Your task to perform on an android device: turn on location history Image 0: 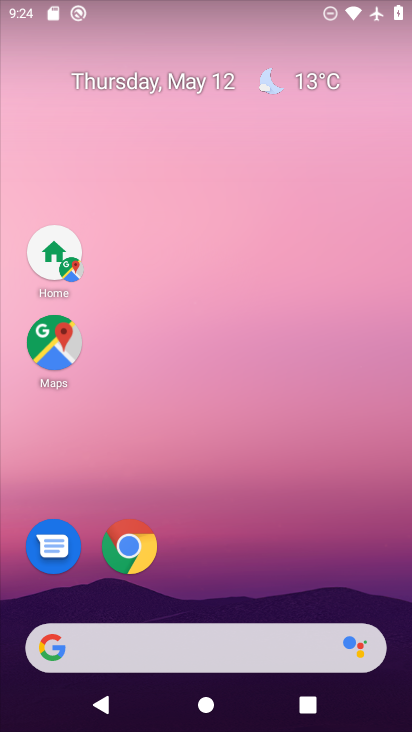
Step 0: click (57, 355)
Your task to perform on an android device: turn on location history Image 1: 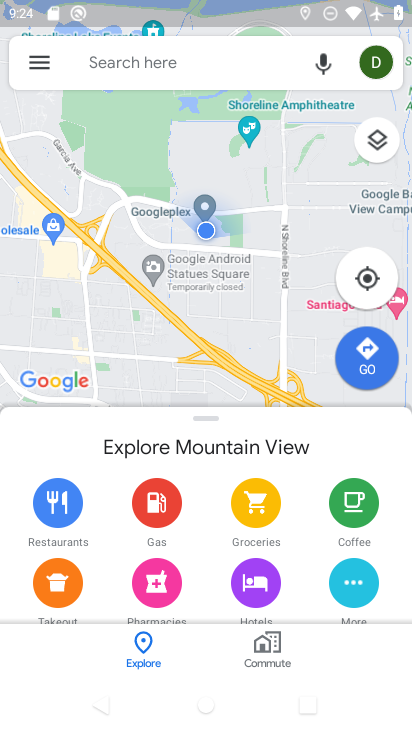
Step 1: click (44, 61)
Your task to perform on an android device: turn on location history Image 2: 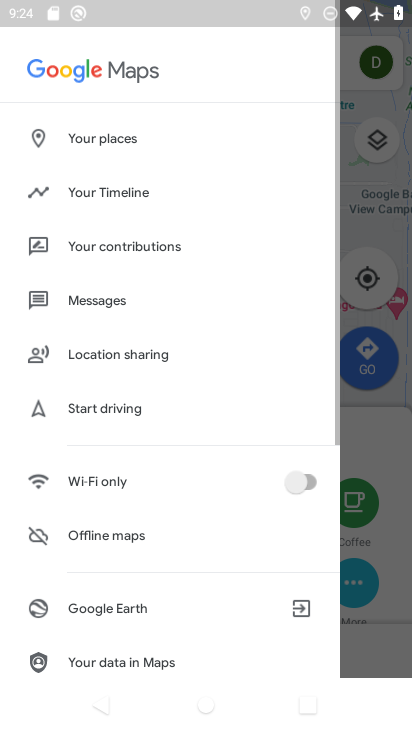
Step 2: click (120, 190)
Your task to perform on an android device: turn on location history Image 3: 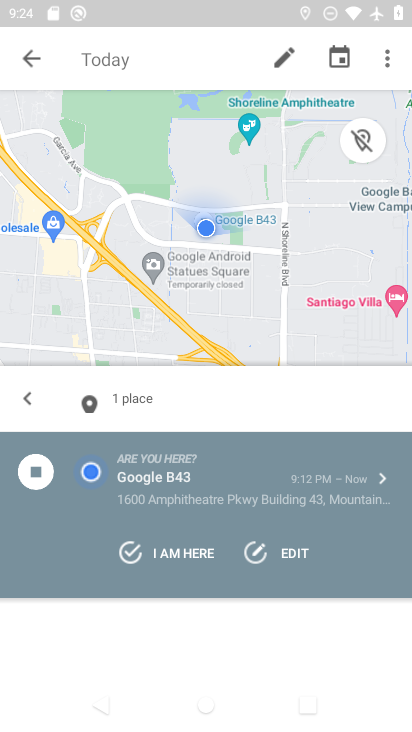
Step 3: click (383, 62)
Your task to perform on an android device: turn on location history Image 4: 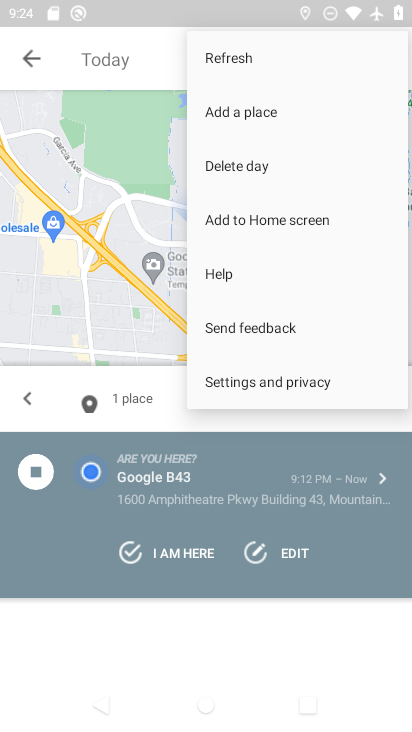
Step 4: click (263, 386)
Your task to perform on an android device: turn on location history Image 5: 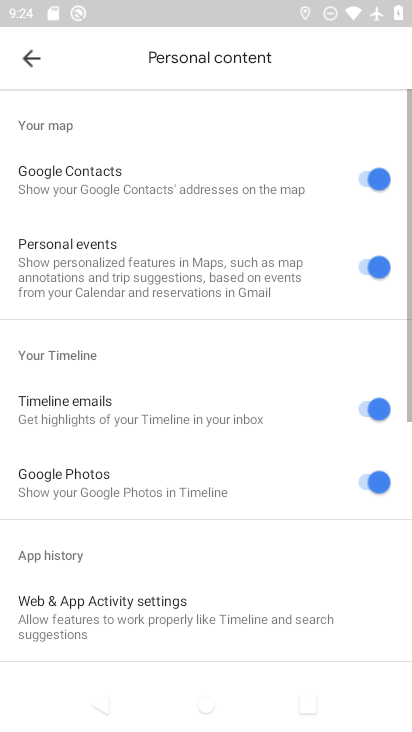
Step 5: drag from (185, 600) to (297, 183)
Your task to perform on an android device: turn on location history Image 6: 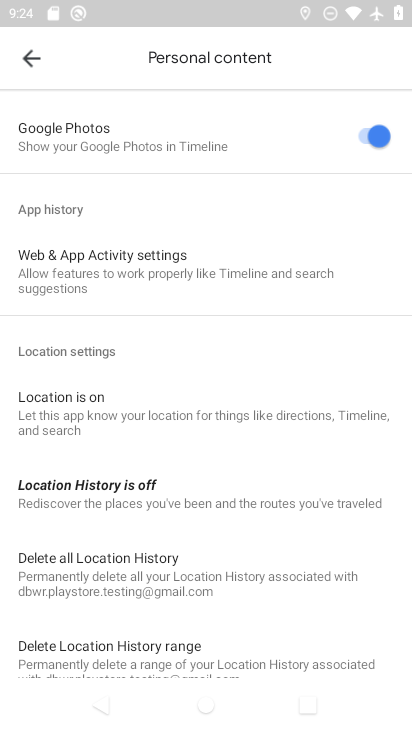
Step 6: click (145, 486)
Your task to perform on an android device: turn on location history Image 7: 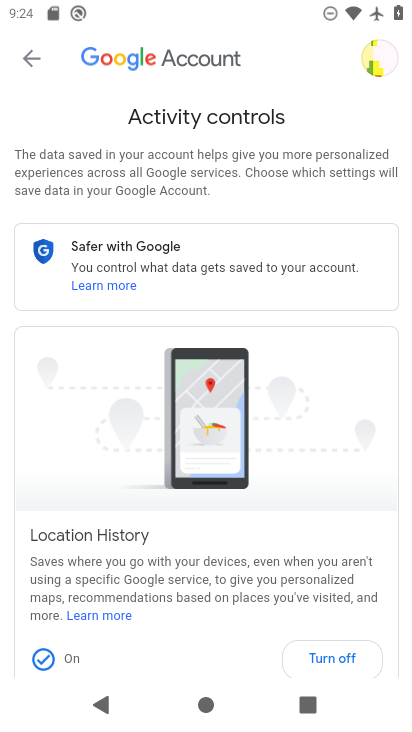
Step 7: task complete